Your task to perform on an android device: Set the phone to "Do not disturb". Image 0: 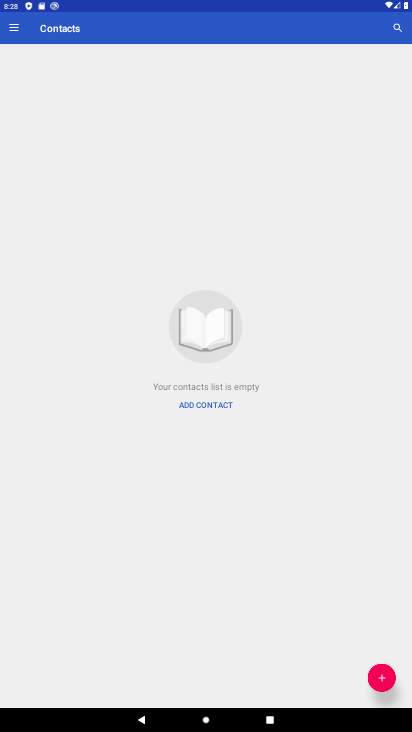
Step 0: press back button
Your task to perform on an android device: Set the phone to "Do not disturb". Image 1: 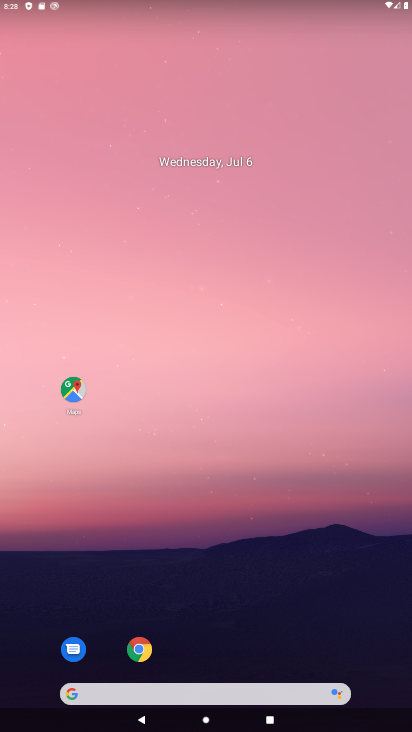
Step 1: drag from (358, 654) to (182, 112)
Your task to perform on an android device: Set the phone to "Do not disturb". Image 2: 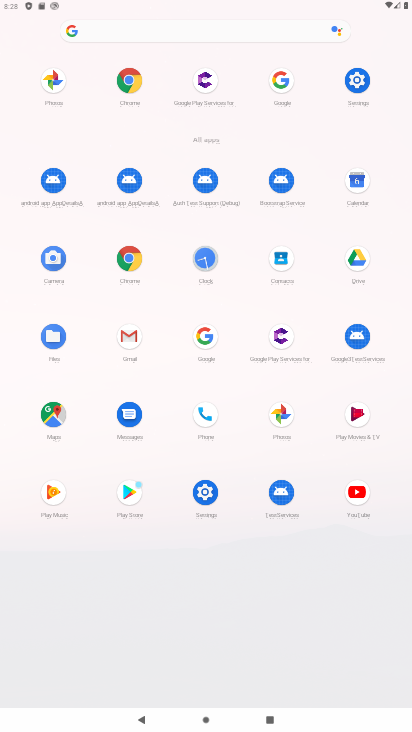
Step 2: click (358, 83)
Your task to perform on an android device: Set the phone to "Do not disturb". Image 3: 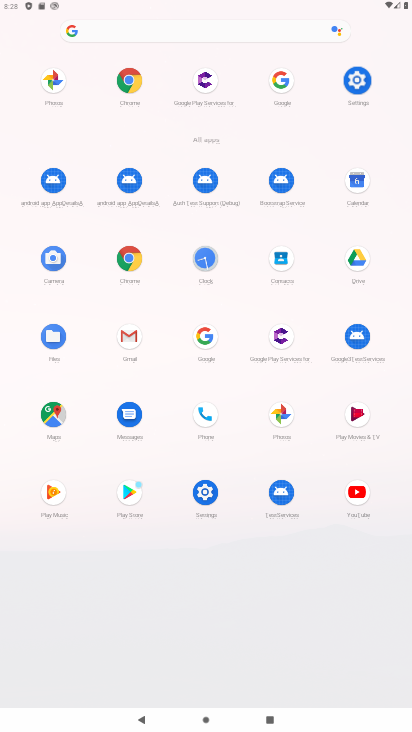
Step 3: click (359, 81)
Your task to perform on an android device: Set the phone to "Do not disturb". Image 4: 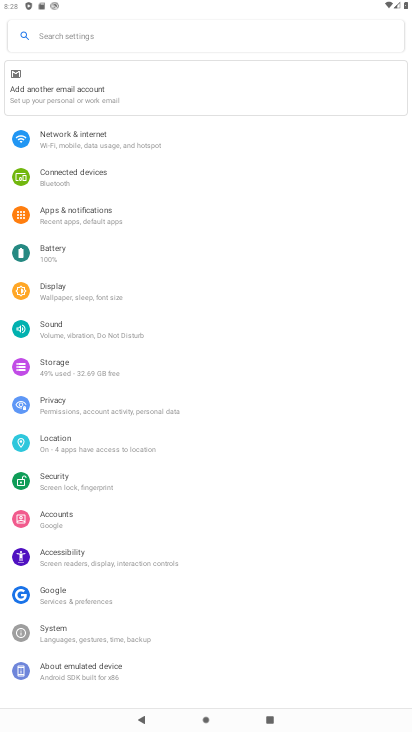
Step 4: click (54, 329)
Your task to perform on an android device: Set the phone to "Do not disturb". Image 5: 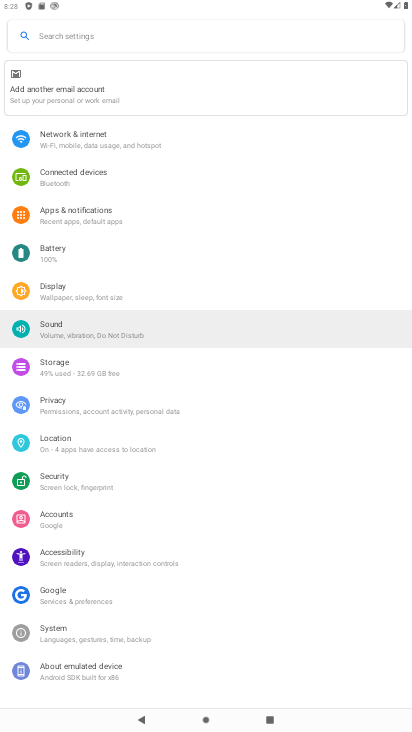
Step 5: click (54, 329)
Your task to perform on an android device: Set the phone to "Do not disturb". Image 6: 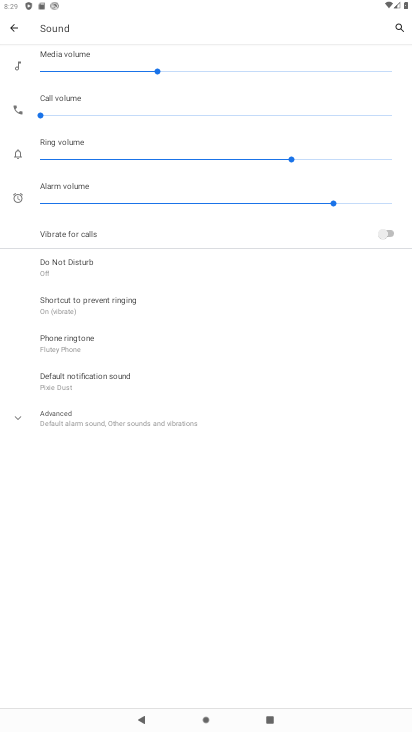
Step 6: click (67, 256)
Your task to perform on an android device: Set the phone to "Do not disturb". Image 7: 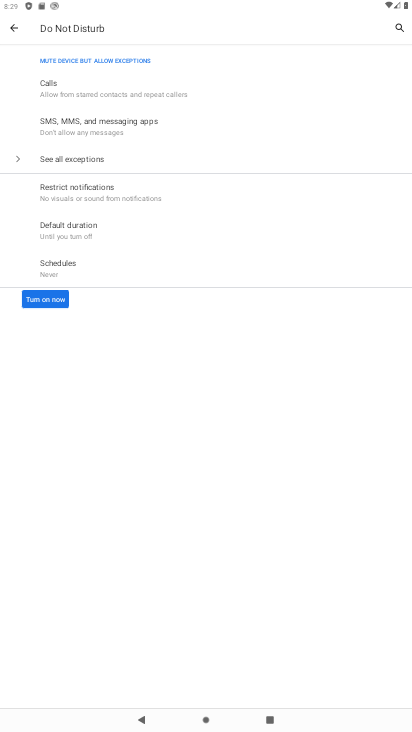
Step 7: click (50, 297)
Your task to perform on an android device: Set the phone to "Do not disturb". Image 8: 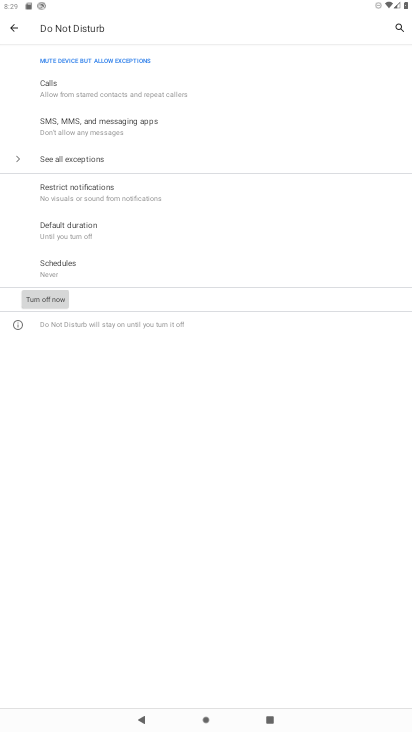
Step 8: task complete